Your task to perform on an android device: Open Google Image 0: 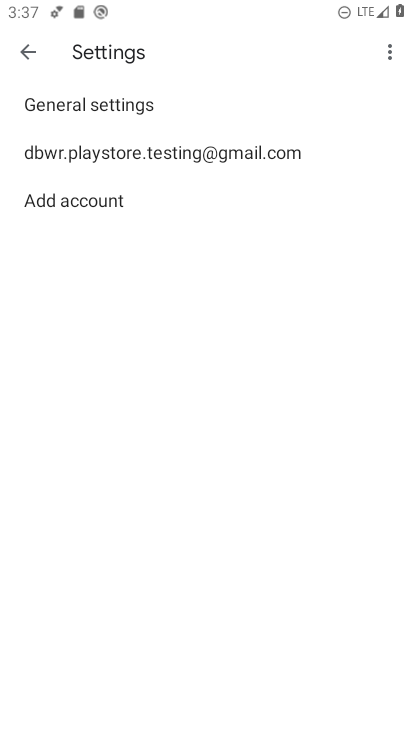
Step 0: press home button
Your task to perform on an android device: Open Google Image 1: 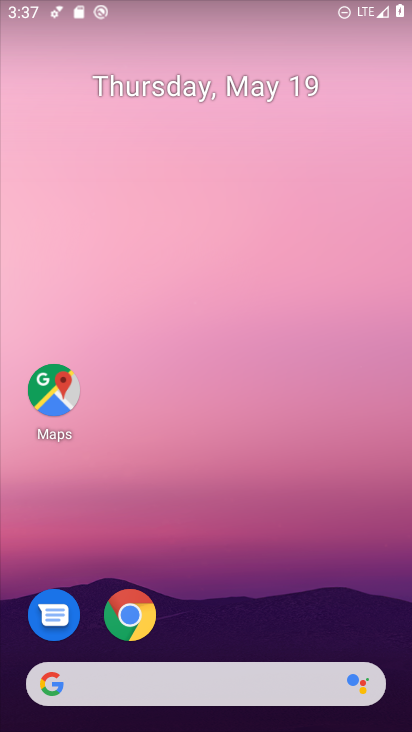
Step 1: drag from (199, 625) to (232, 118)
Your task to perform on an android device: Open Google Image 2: 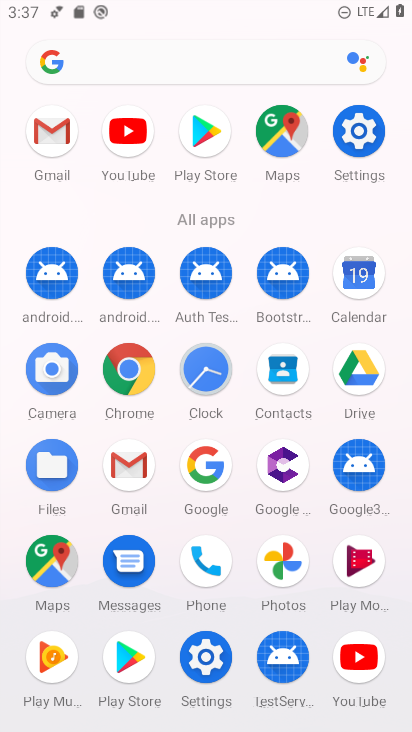
Step 2: click (217, 476)
Your task to perform on an android device: Open Google Image 3: 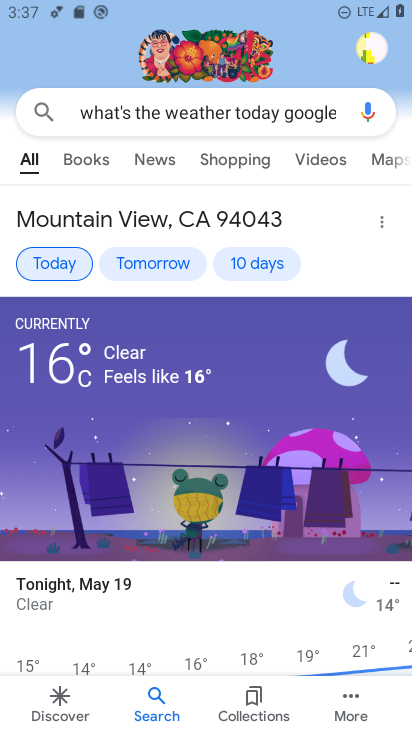
Step 3: task complete